Your task to perform on an android device: Toggle the flashlight Image 0: 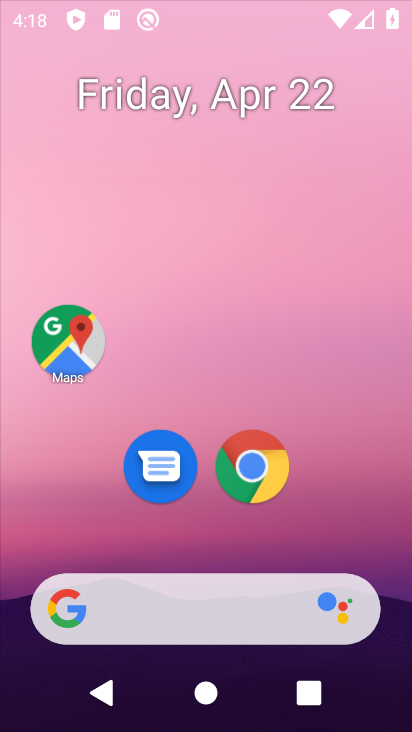
Step 0: drag from (346, 548) to (327, 300)
Your task to perform on an android device: Toggle the flashlight Image 1: 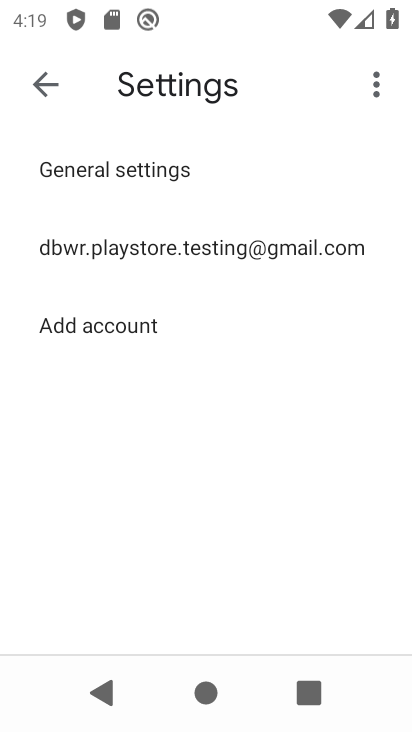
Step 1: drag from (249, 4) to (185, 348)
Your task to perform on an android device: Toggle the flashlight Image 2: 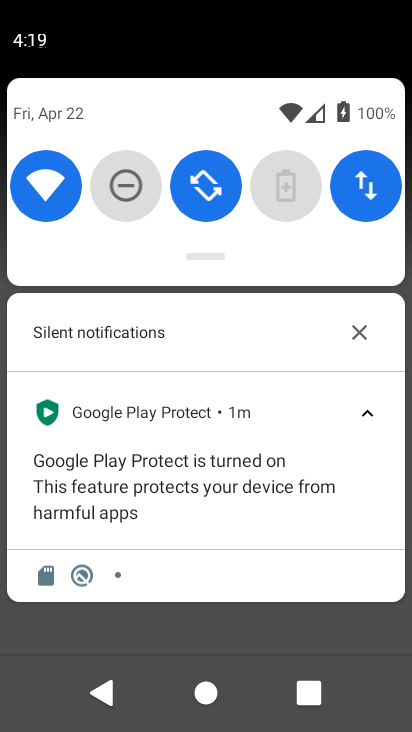
Step 2: drag from (239, 231) to (211, 460)
Your task to perform on an android device: Toggle the flashlight Image 3: 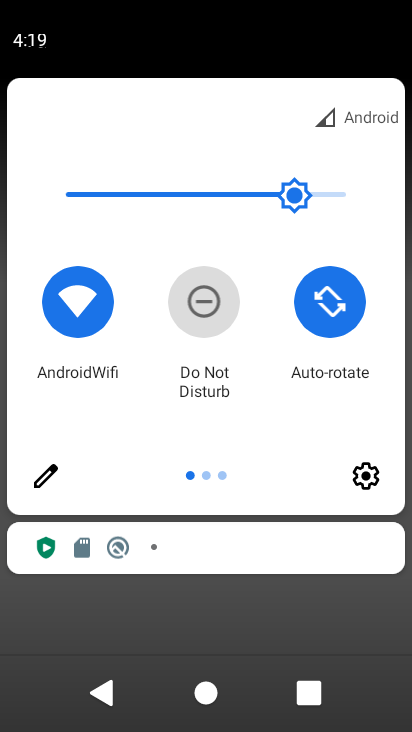
Step 3: drag from (363, 422) to (127, 415)
Your task to perform on an android device: Toggle the flashlight Image 4: 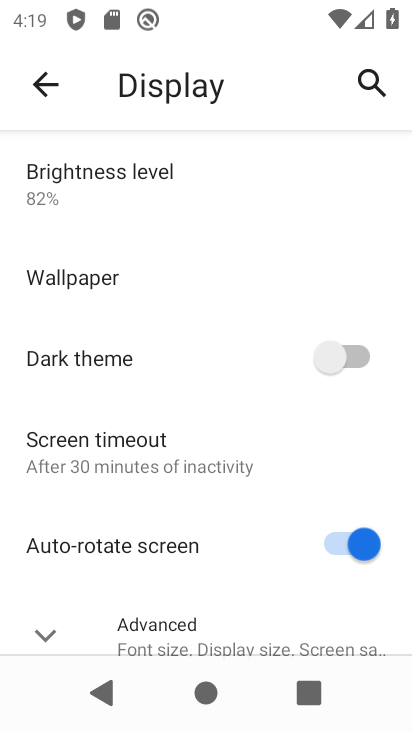
Step 4: drag from (139, 520) to (119, 404)
Your task to perform on an android device: Toggle the flashlight Image 5: 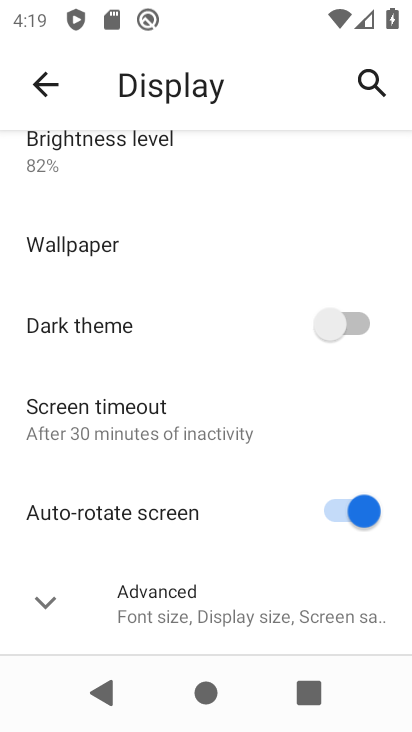
Step 5: drag from (225, 11) to (170, 500)
Your task to perform on an android device: Toggle the flashlight Image 6: 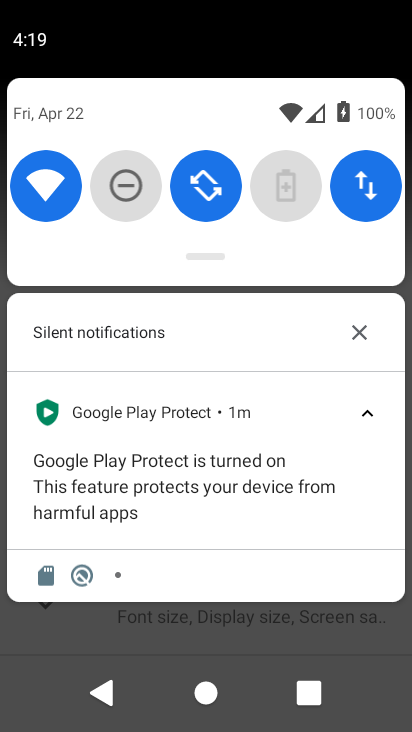
Step 6: drag from (246, 234) to (238, 623)
Your task to perform on an android device: Toggle the flashlight Image 7: 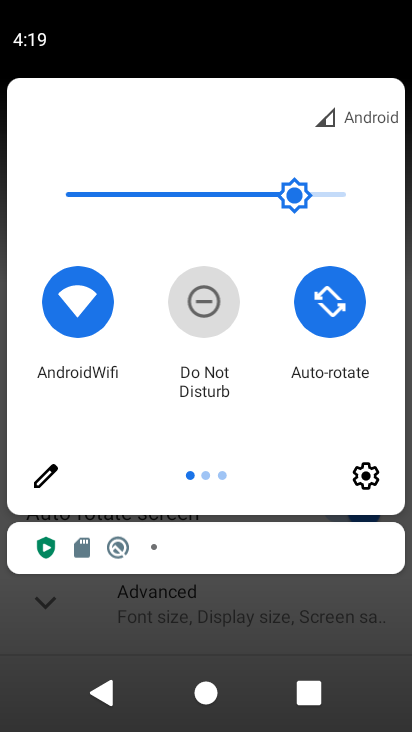
Step 7: drag from (381, 408) to (35, 369)
Your task to perform on an android device: Toggle the flashlight Image 8: 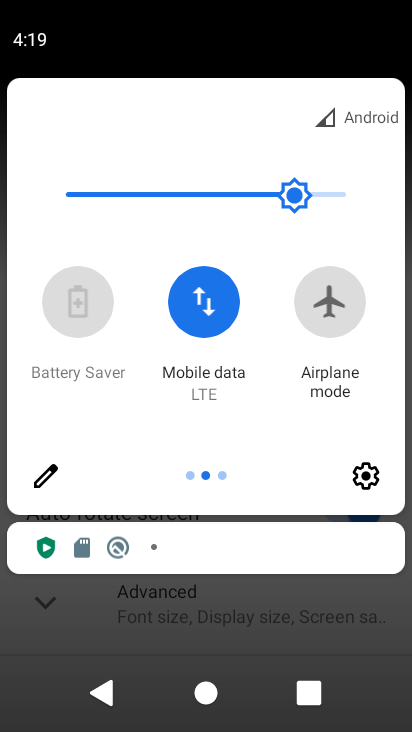
Step 8: drag from (399, 378) to (0, 368)
Your task to perform on an android device: Toggle the flashlight Image 9: 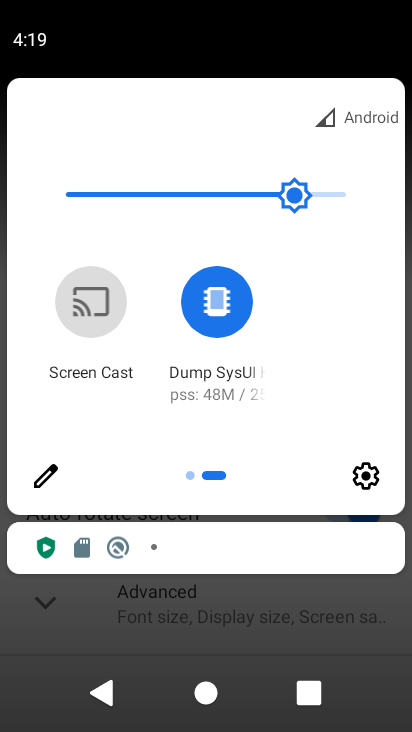
Step 9: click (45, 481)
Your task to perform on an android device: Toggle the flashlight Image 10: 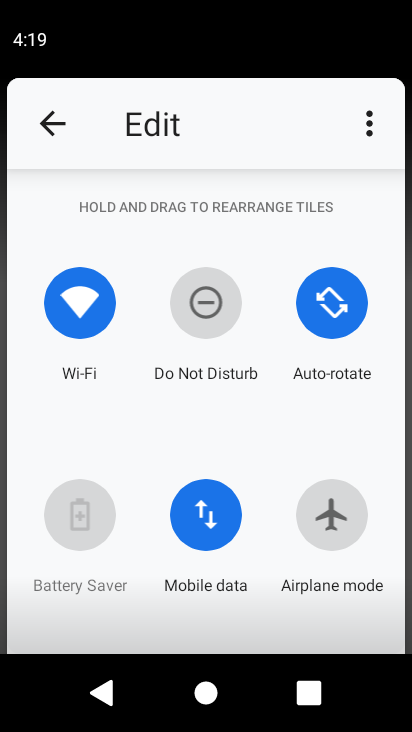
Step 10: task complete